Your task to perform on an android device: Open accessibility settings Image 0: 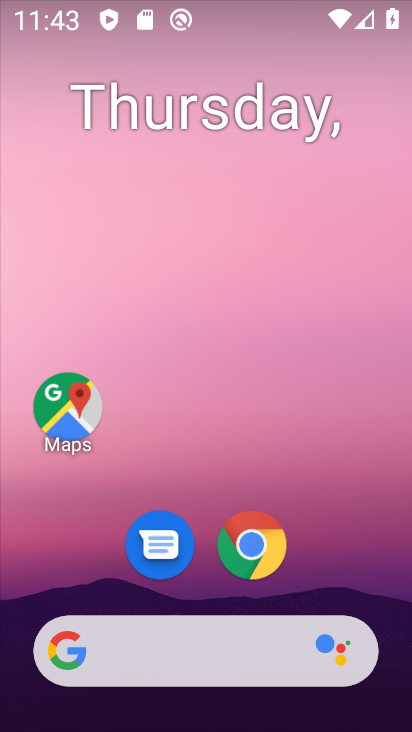
Step 0: drag from (307, 567) to (321, 296)
Your task to perform on an android device: Open accessibility settings Image 1: 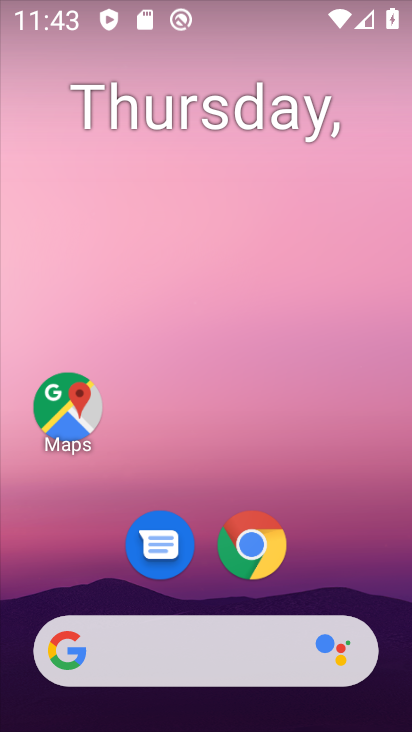
Step 1: drag from (313, 478) to (364, 139)
Your task to perform on an android device: Open accessibility settings Image 2: 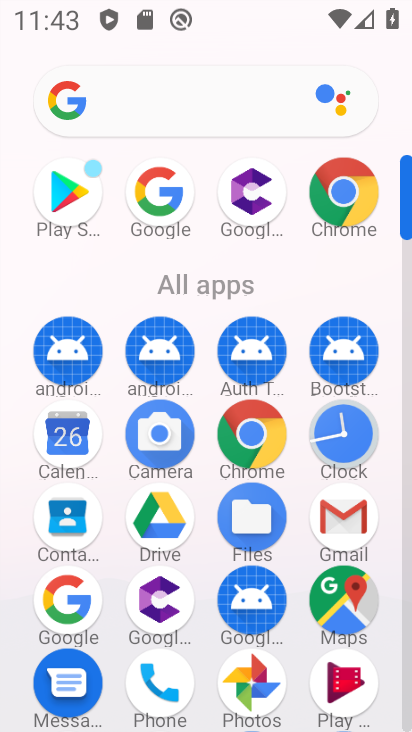
Step 2: drag from (186, 622) to (225, 250)
Your task to perform on an android device: Open accessibility settings Image 3: 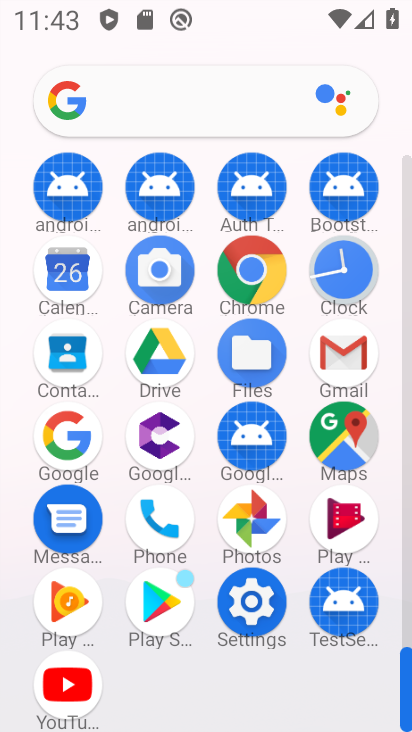
Step 3: click (244, 602)
Your task to perform on an android device: Open accessibility settings Image 4: 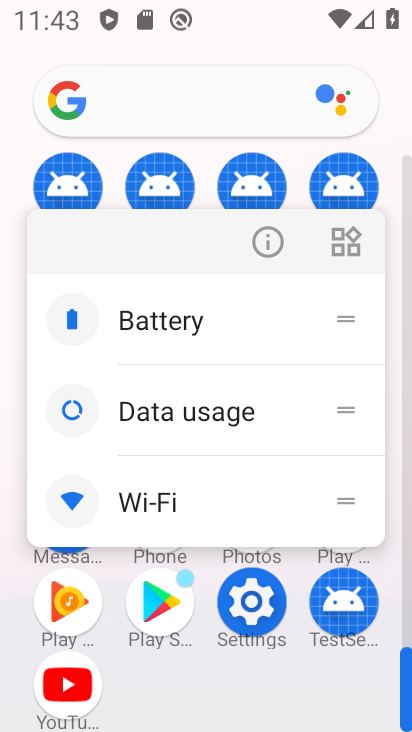
Step 4: click (243, 583)
Your task to perform on an android device: Open accessibility settings Image 5: 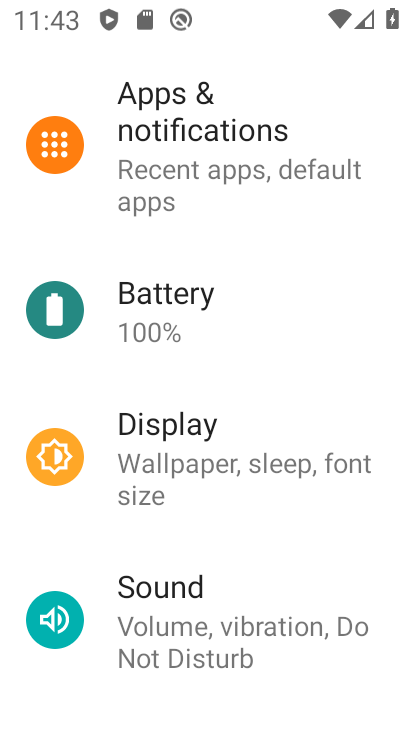
Step 5: drag from (253, 566) to (292, 154)
Your task to perform on an android device: Open accessibility settings Image 6: 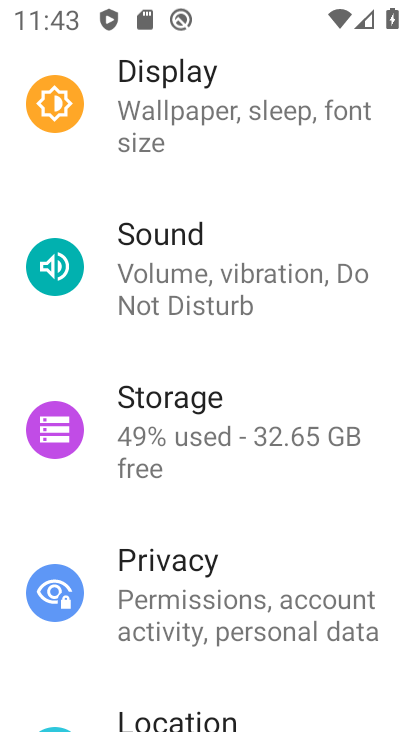
Step 6: drag from (208, 594) to (282, 173)
Your task to perform on an android device: Open accessibility settings Image 7: 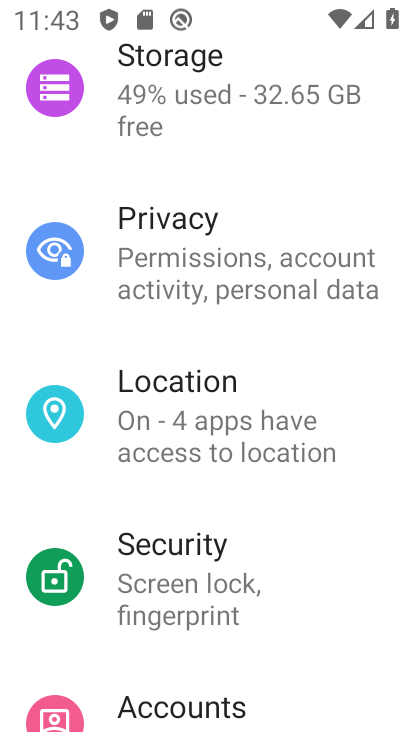
Step 7: drag from (299, 562) to (296, 171)
Your task to perform on an android device: Open accessibility settings Image 8: 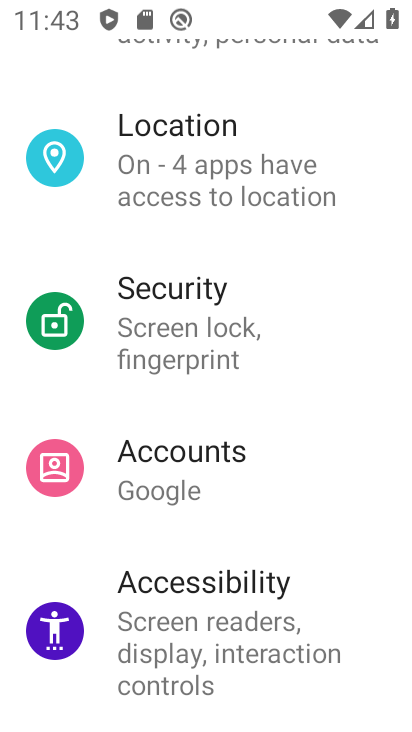
Step 8: click (198, 614)
Your task to perform on an android device: Open accessibility settings Image 9: 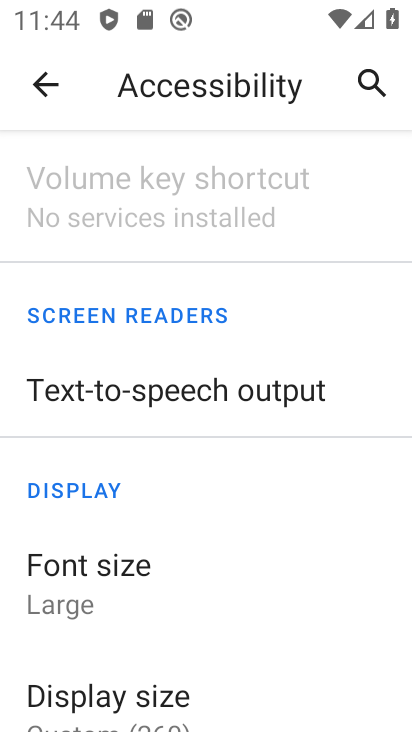
Step 9: task complete